Your task to perform on an android device: empty trash in the gmail app Image 0: 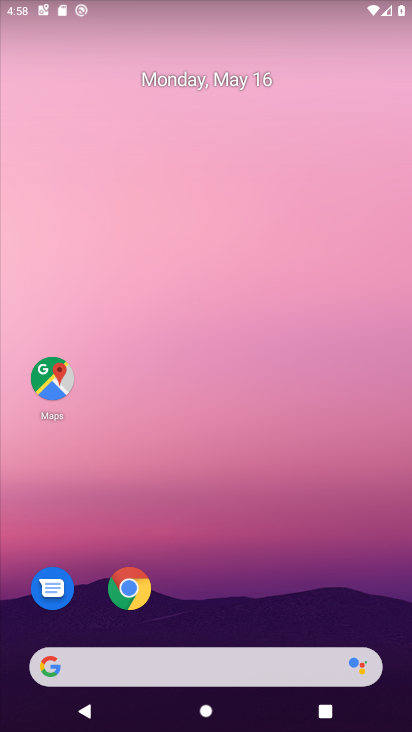
Step 0: drag from (279, 563) to (220, 81)
Your task to perform on an android device: empty trash in the gmail app Image 1: 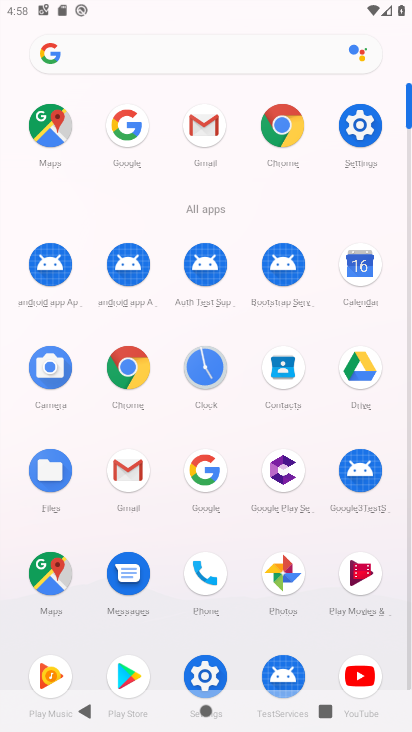
Step 1: click (130, 472)
Your task to perform on an android device: empty trash in the gmail app Image 2: 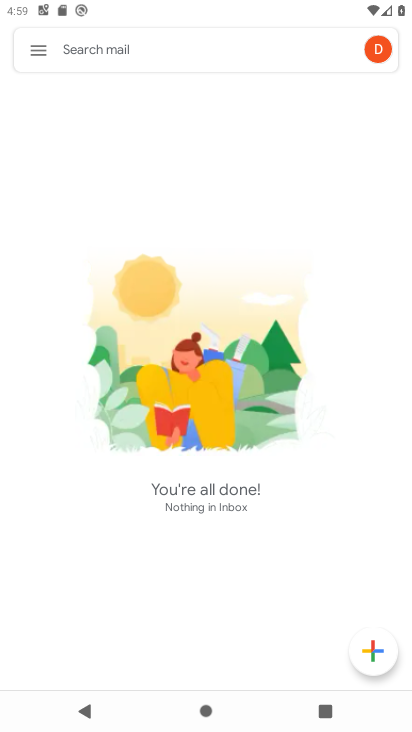
Step 2: click (43, 50)
Your task to perform on an android device: empty trash in the gmail app Image 3: 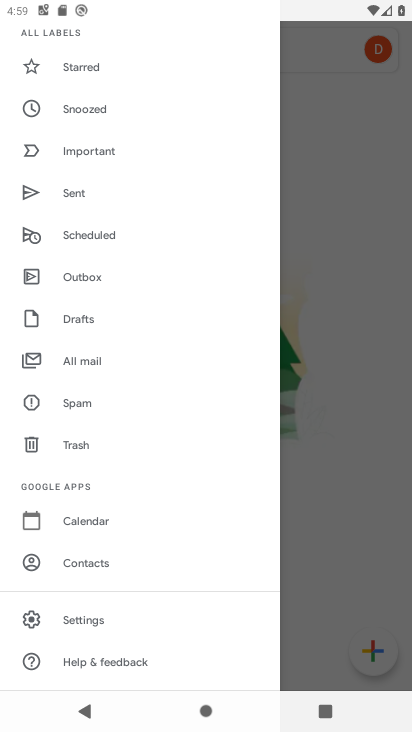
Step 3: click (106, 439)
Your task to perform on an android device: empty trash in the gmail app Image 4: 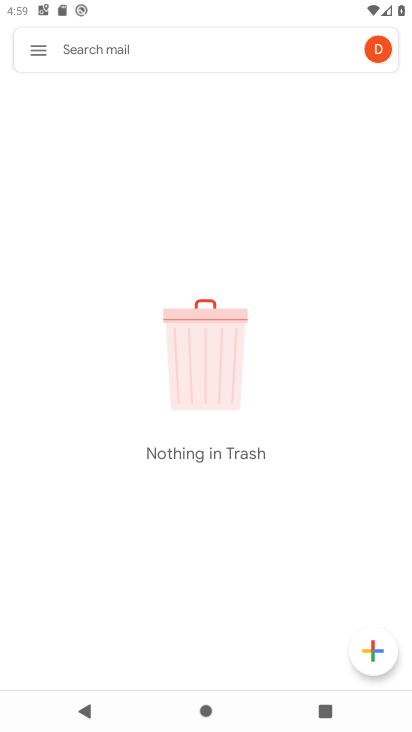
Step 4: task complete